Your task to perform on an android device: Search for vegetarian restaurants on Maps Image 0: 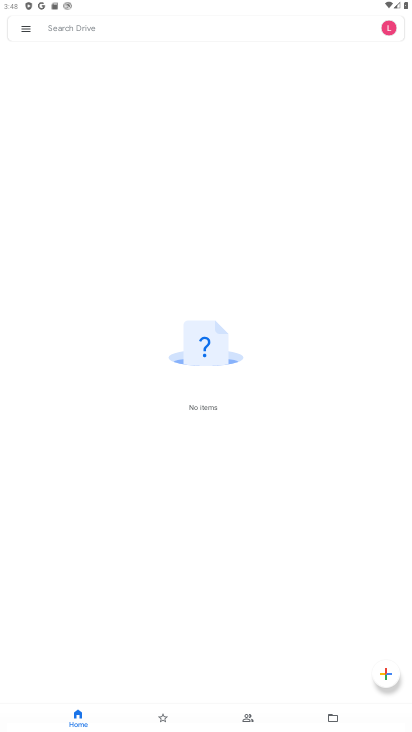
Step 0: press home button
Your task to perform on an android device: Search for vegetarian restaurants on Maps Image 1: 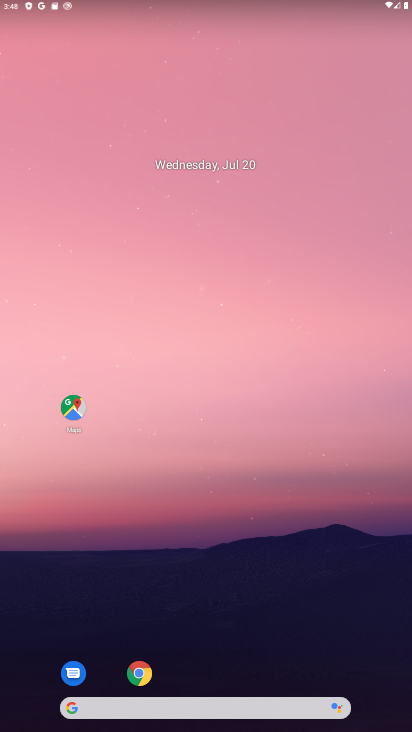
Step 1: press home button
Your task to perform on an android device: Search for vegetarian restaurants on Maps Image 2: 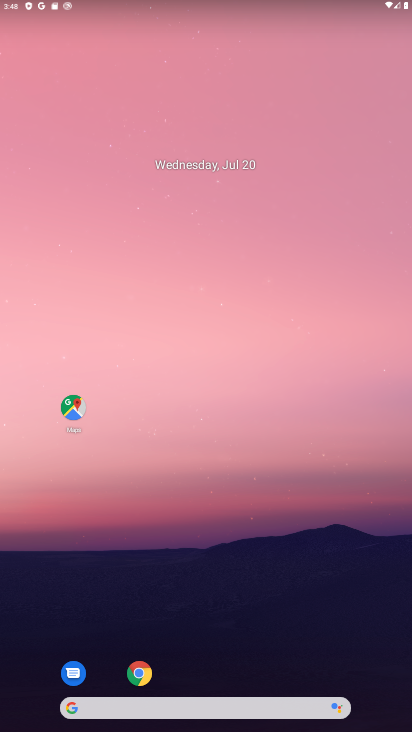
Step 2: click (72, 406)
Your task to perform on an android device: Search for vegetarian restaurants on Maps Image 3: 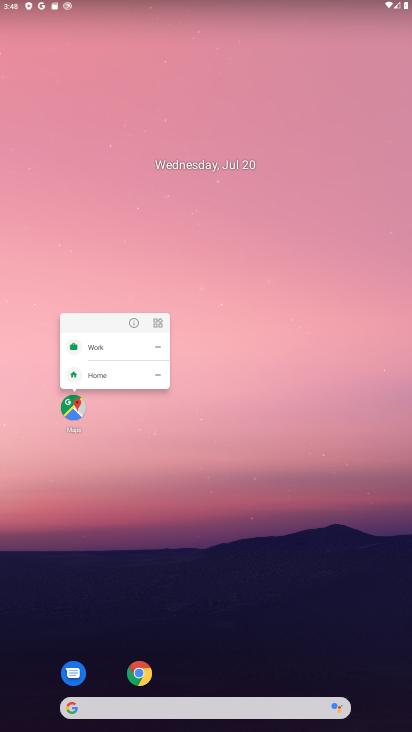
Step 3: click (68, 411)
Your task to perform on an android device: Search for vegetarian restaurants on Maps Image 4: 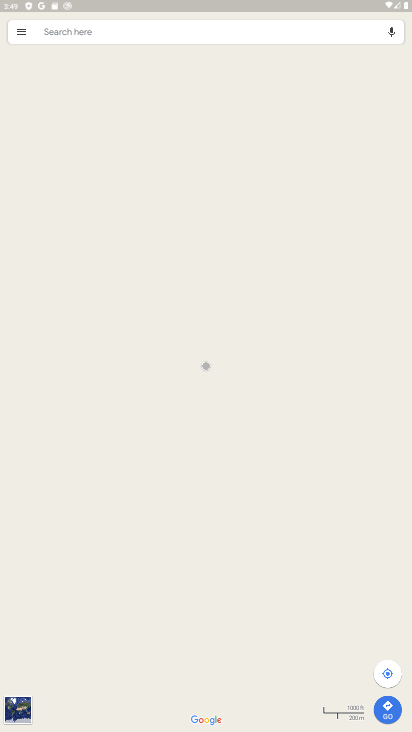
Step 4: click (91, 31)
Your task to perform on an android device: Search for vegetarian restaurants on Maps Image 5: 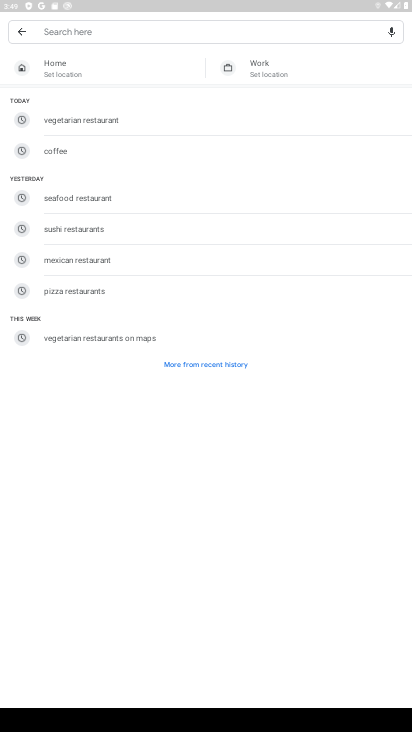
Step 5: type "vegetarian restaurants"
Your task to perform on an android device: Search for vegetarian restaurants on Maps Image 6: 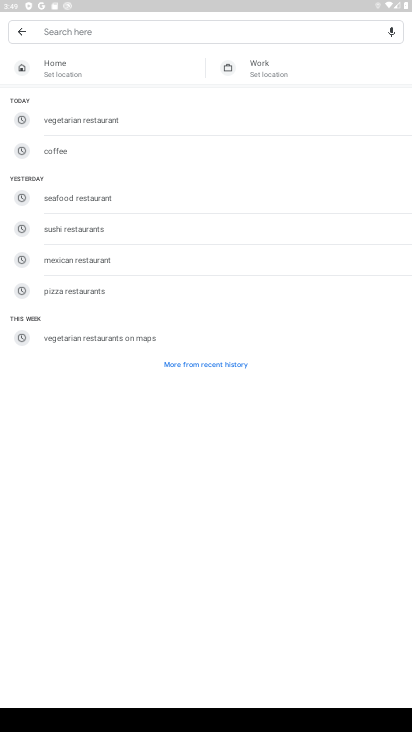
Step 6: click (79, 29)
Your task to perform on an android device: Search for vegetarian restaurants on Maps Image 7: 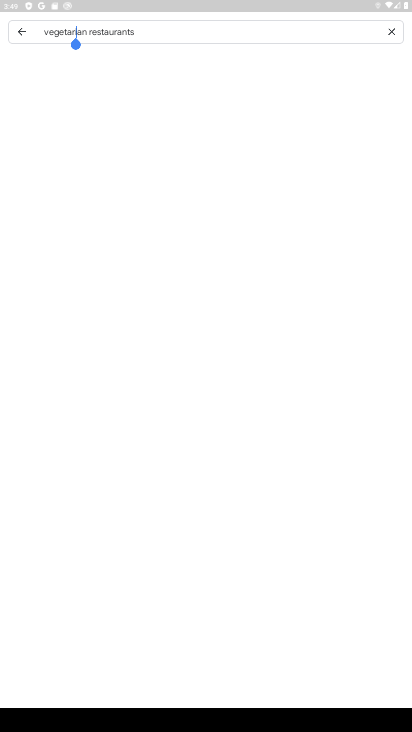
Step 7: drag from (92, 118) to (390, 121)
Your task to perform on an android device: Search for vegetarian restaurants on Maps Image 8: 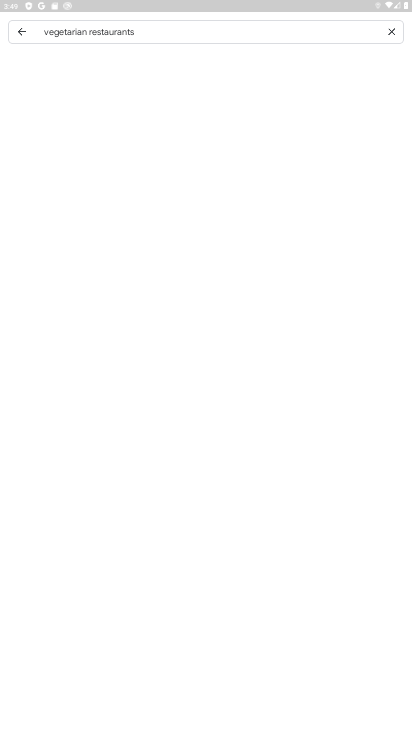
Step 8: press enter
Your task to perform on an android device: Search for vegetarian restaurants on Maps Image 9: 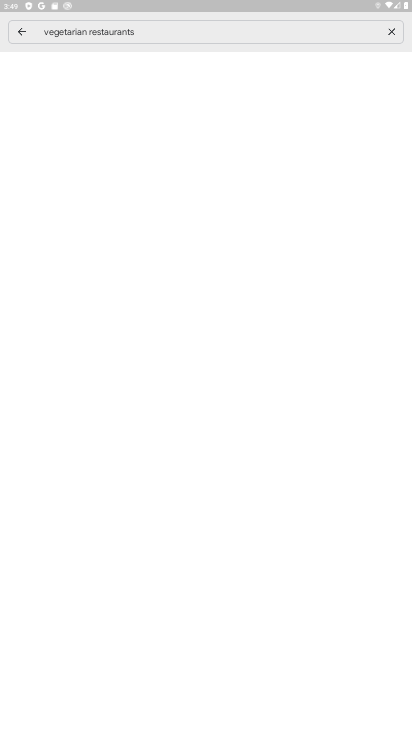
Step 9: drag from (390, 121) to (369, 228)
Your task to perform on an android device: Search for vegetarian restaurants on Maps Image 10: 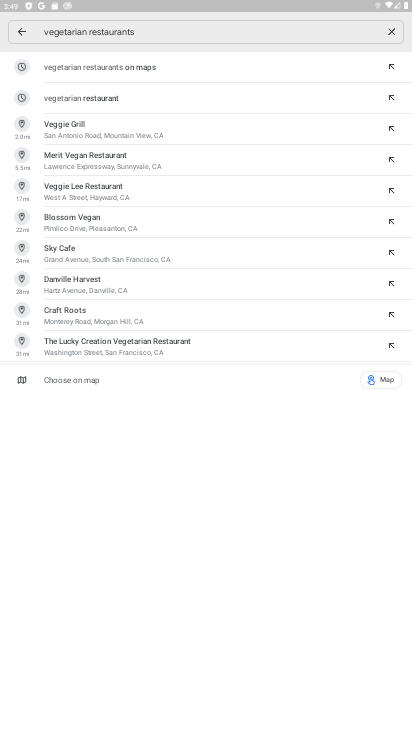
Step 10: click (193, 27)
Your task to perform on an android device: Search for vegetarian restaurants on Maps Image 11: 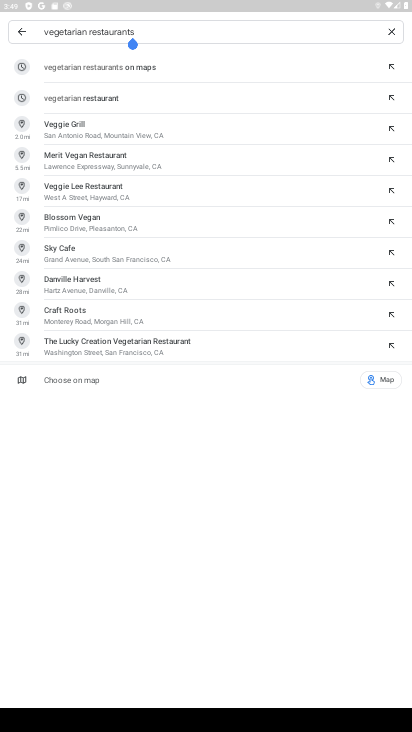
Step 11: press enter
Your task to perform on an android device: Search for vegetarian restaurants on Maps Image 12: 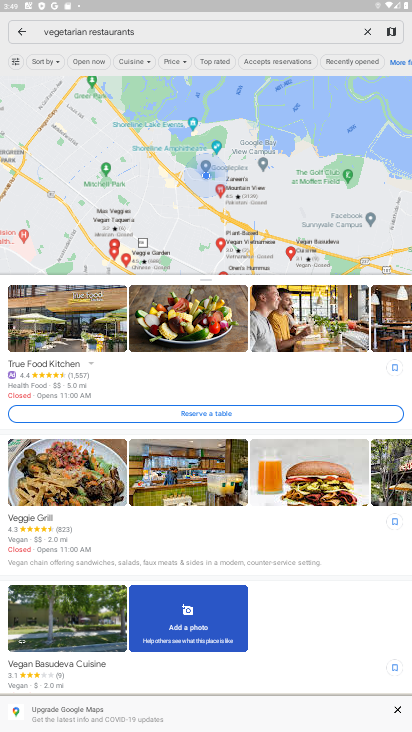
Step 12: task complete